Your task to perform on an android device: Search for seafood restaurants on Google Maps Image 0: 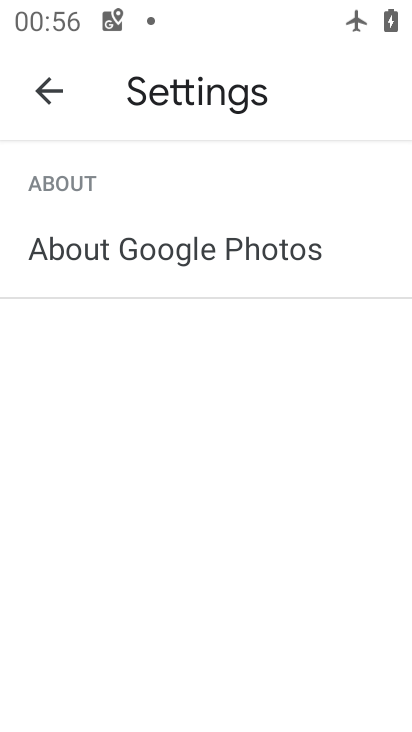
Step 0: press home button
Your task to perform on an android device: Search for seafood restaurants on Google Maps Image 1: 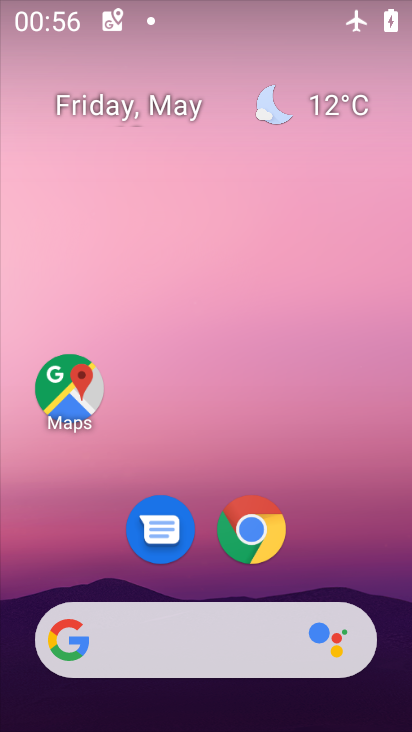
Step 1: drag from (329, 389) to (329, 149)
Your task to perform on an android device: Search for seafood restaurants on Google Maps Image 2: 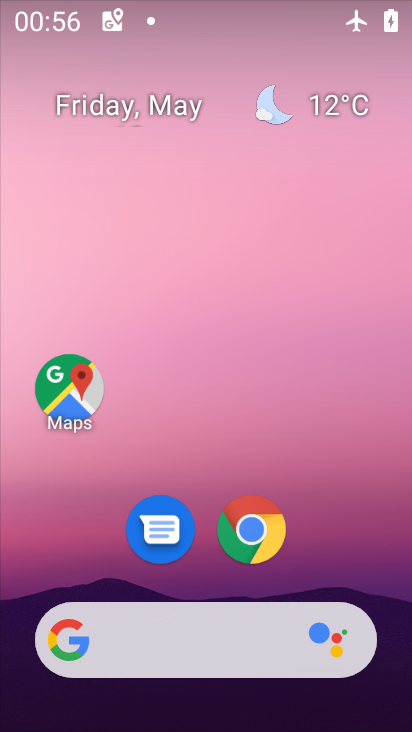
Step 2: click (20, 372)
Your task to perform on an android device: Search for seafood restaurants on Google Maps Image 3: 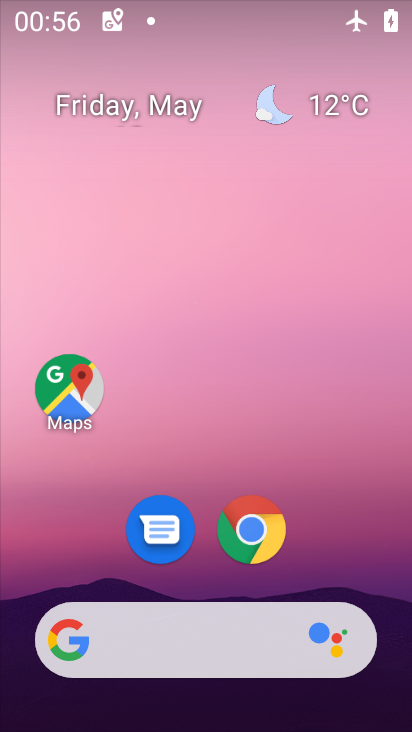
Step 3: click (62, 393)
Your task to perform on an android device: Search for seafood restaurants on Google Maps Image 4: 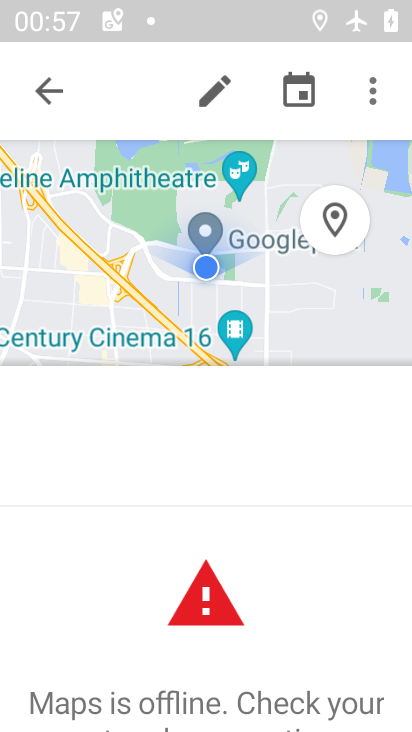
Step 4: click (70, 80)
Your task to perform on an android device: Search for seafood restaurants on Google Maps Image 5: 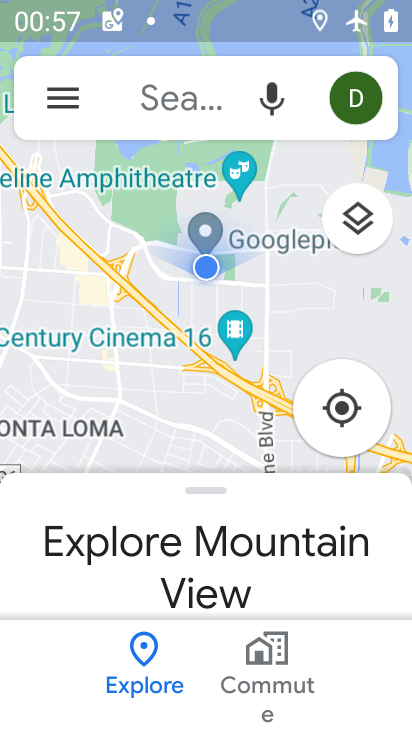
Step 5: click (199, 97)
Your task to perform on an android device: Search for seafood restaurants on Google Maps Image 6: 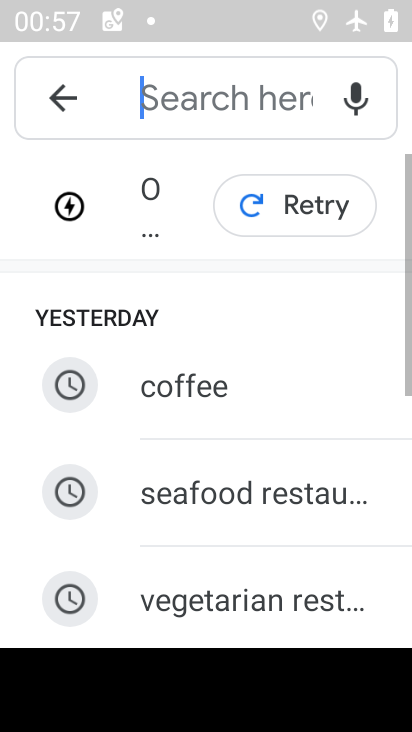
Step 6: click (216, 467)
Your task to perform on an android device: Search for seafood restaurants on Google Maps Image 7: 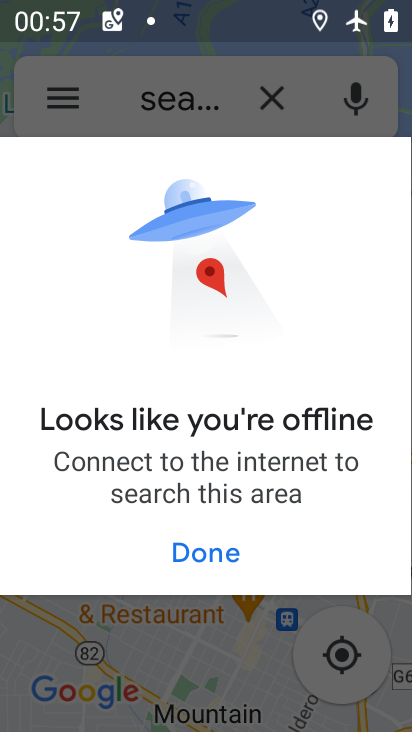
Step 7: task complete